Your task to perform on an android device: change timer sound Image 0: 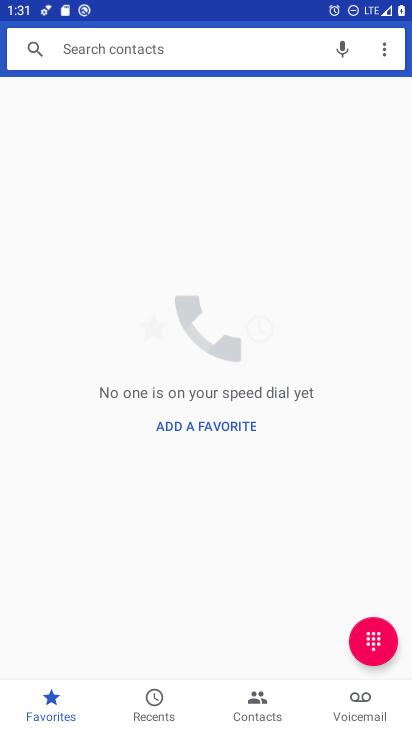
Step 0: press home button
Your task to perform on an android device: change timer sound Image 1: 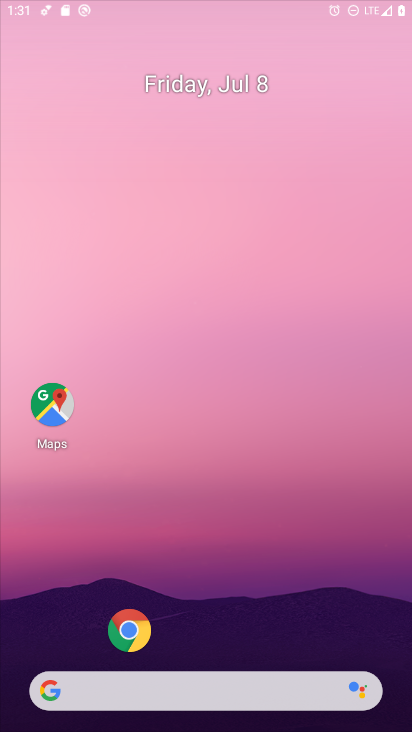
Step 1: drag from (192, 618) to (179, 122)
Your task to perform on an android device: change timer sound Image 2: 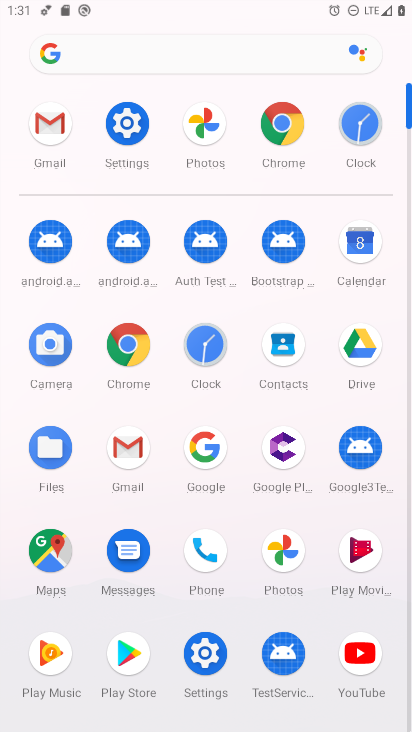
Step 2: click (139, 129)
Your task to perform on an android device: change timer sound Image 3: 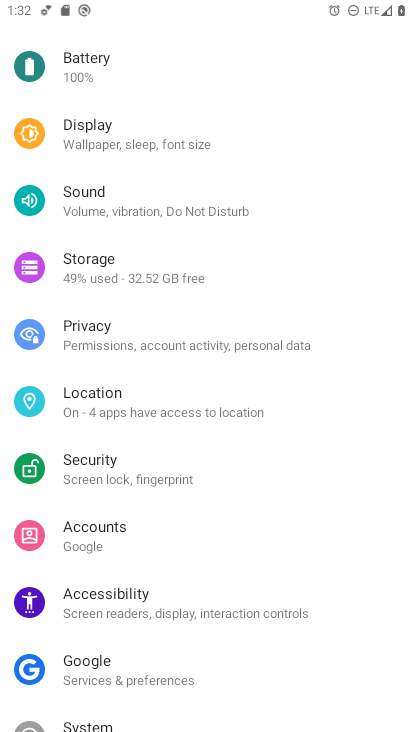
Step 3: press home button
Your task to perform on an android device: change timer sound Image 4: 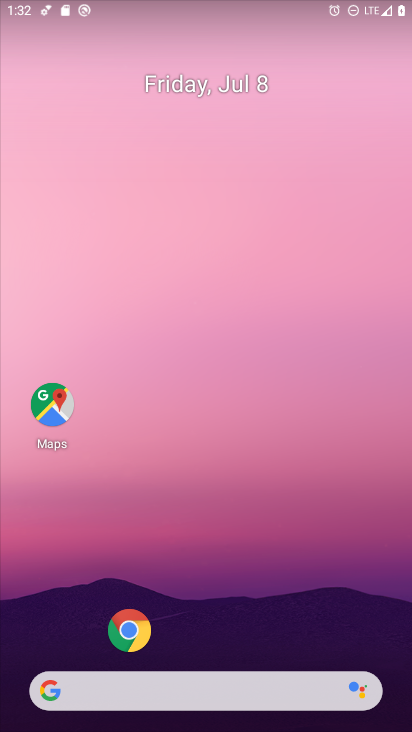
Step 4: drag from (279, 618) to (331, 56)
Your task to perform on an android device: change timer sound Image 5: 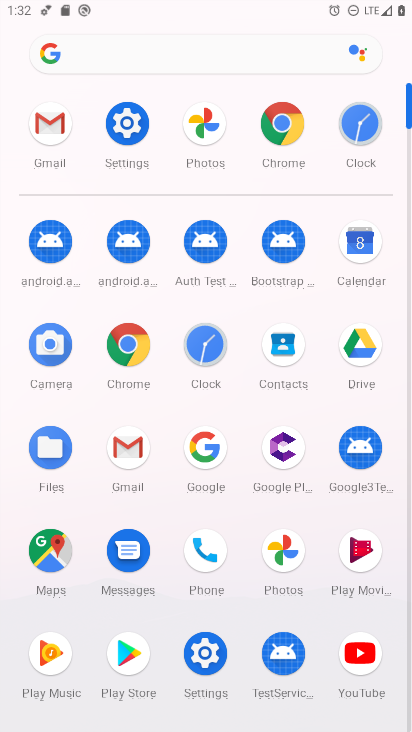
Step 5: click (196, 344)
Your task to perform on an android device: change timer sound Image 6: 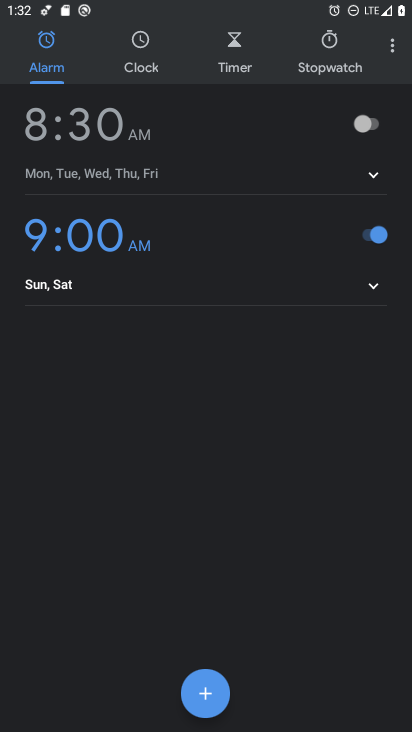
Step 6: click (382, 36)
Your task to perform on an android device: change timer sound Image 7: 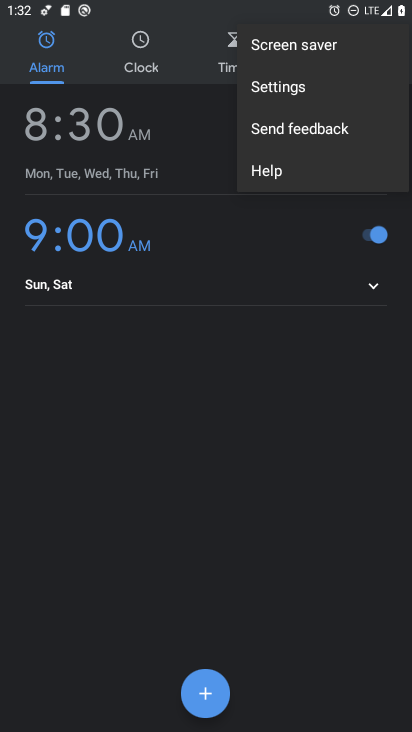
Step 7: click (304, 87)
Your task to perform on an android device: change timer sound Image 8: 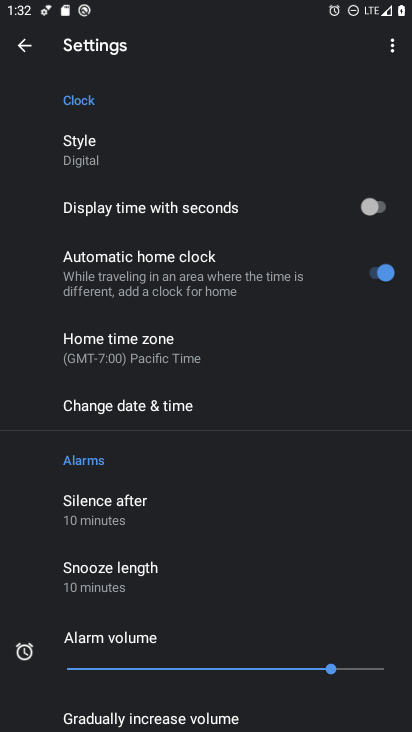
Step 8: drag from (207, 653) to (272, 163)
Your task to perform on an android device: change timer sound Image 9: 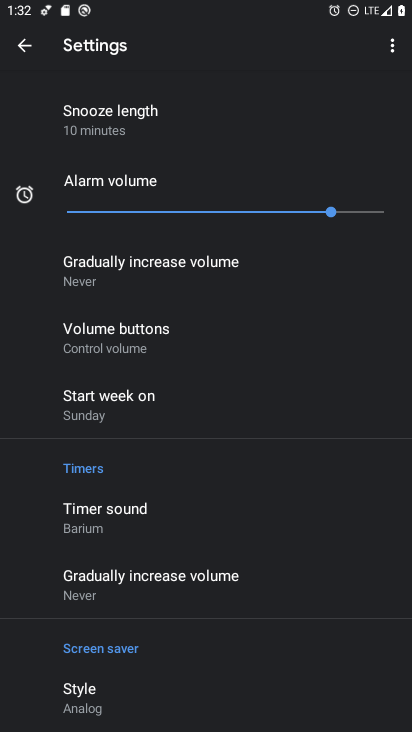
Step 9: click (163, 511)
Your task to perform on an android device: change timer sound Image 10: 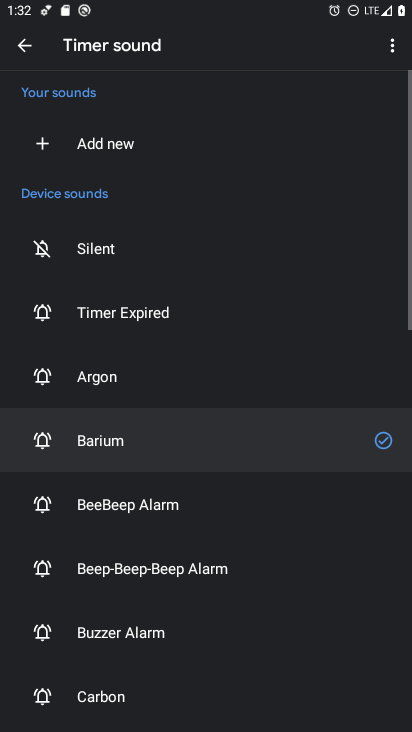
Step 10: click (124, 504)
Your task to perform on an android device: change timer sound Image 11: 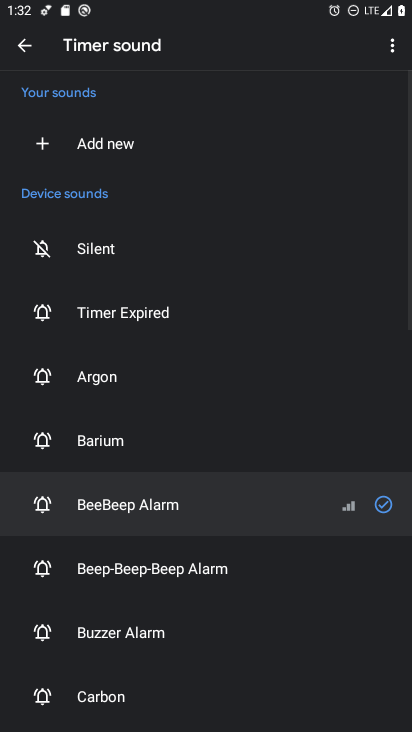
Step 11: task complete